Your task to perform on an android device: What is the capital of India? Image 0: 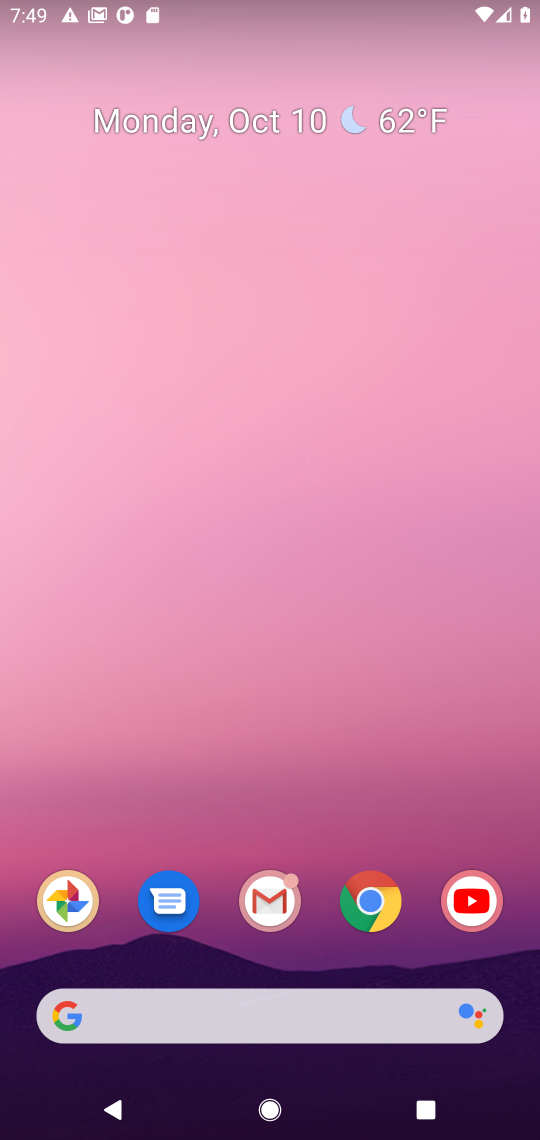
Step 0: drag from (320, 998) to (439, 357)
Your task to perform on an android device: What is the capital of India? Image 1: 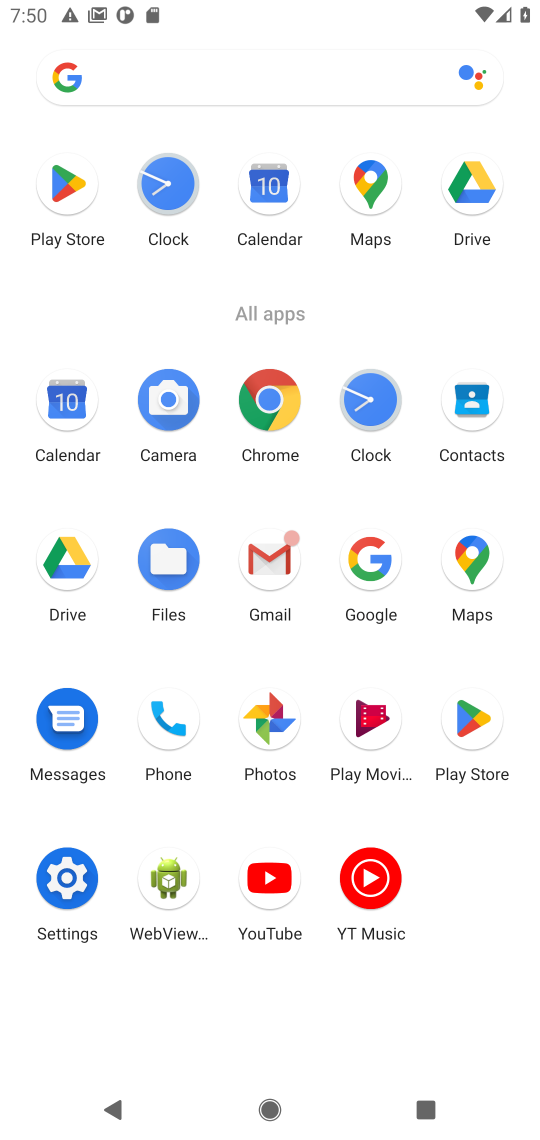
Step 1: click (366, 607)
Your task to perform on an android device: What is the capital of India? Image 2: 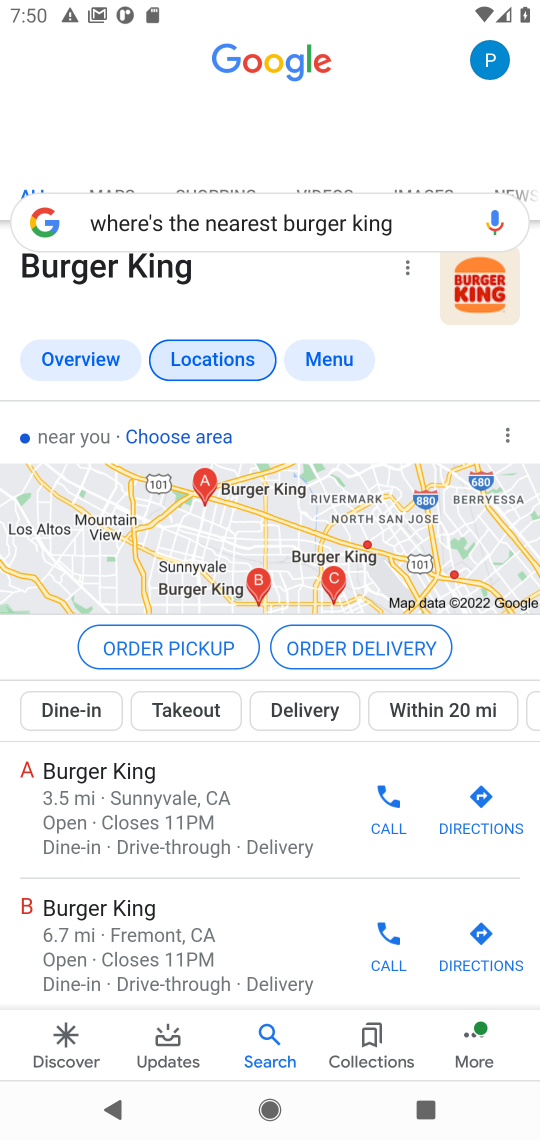
Step 2: click (408, 228)
Your task to perform on an android device: What is the capital of India? Image 3: 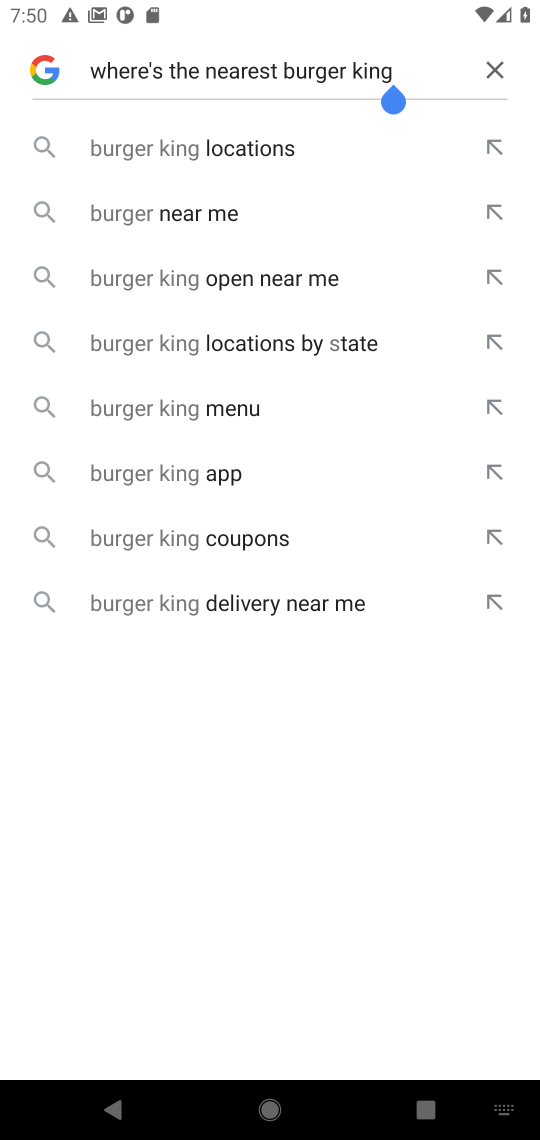
Step 3: click (494, 72)
Your task to perform on an android device: What is the capital of India? Image 4: 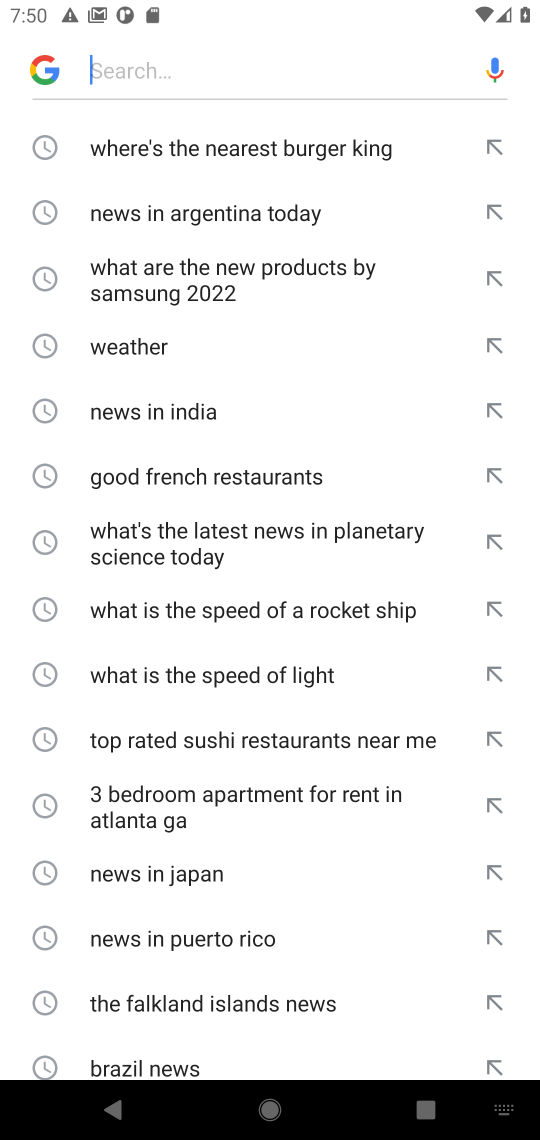
Step 4: type "capital of India?"
Your task to perform on an android device: What is the capital of India? Image 5: 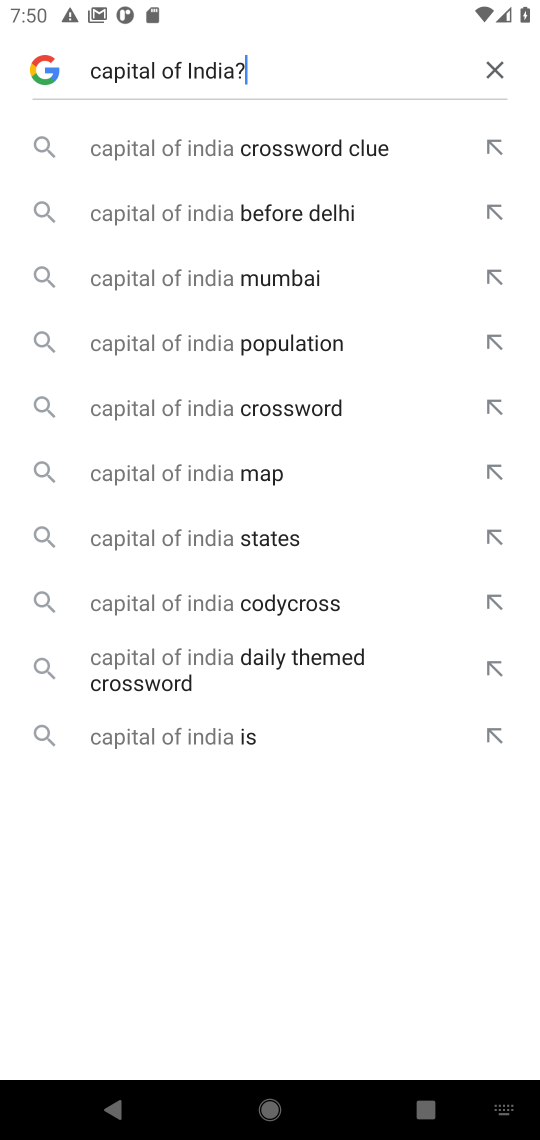
Step 5: click (275, 749)
Your task to perform on an android device: What is the capital of India? Image 6: 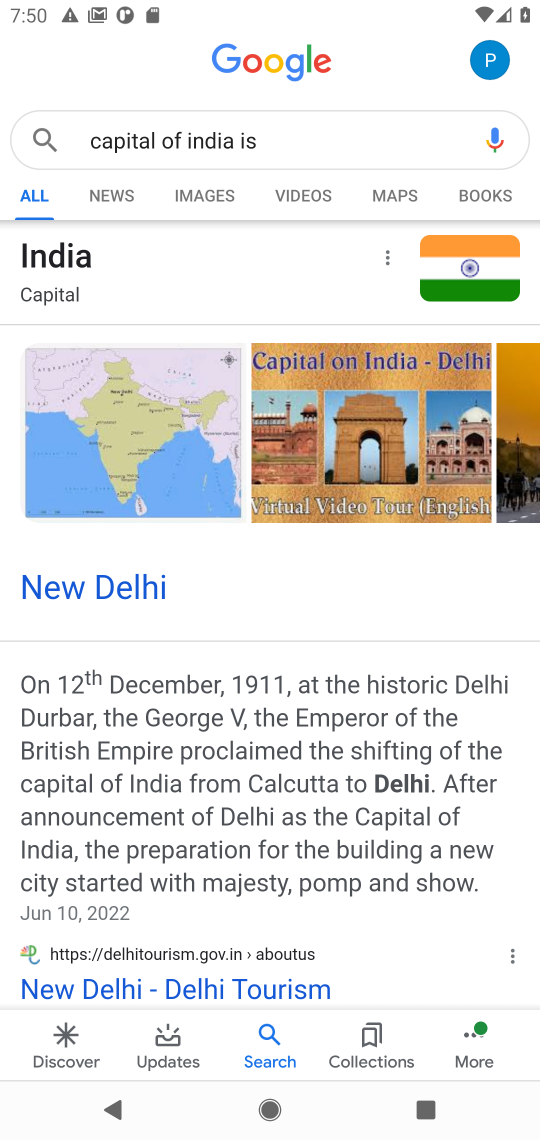
Step 6: task complete